Your task to perform on an android device: Search for macbook air on bestbuy, select the first entry, add it to the cart, then select checkout. Image 0: 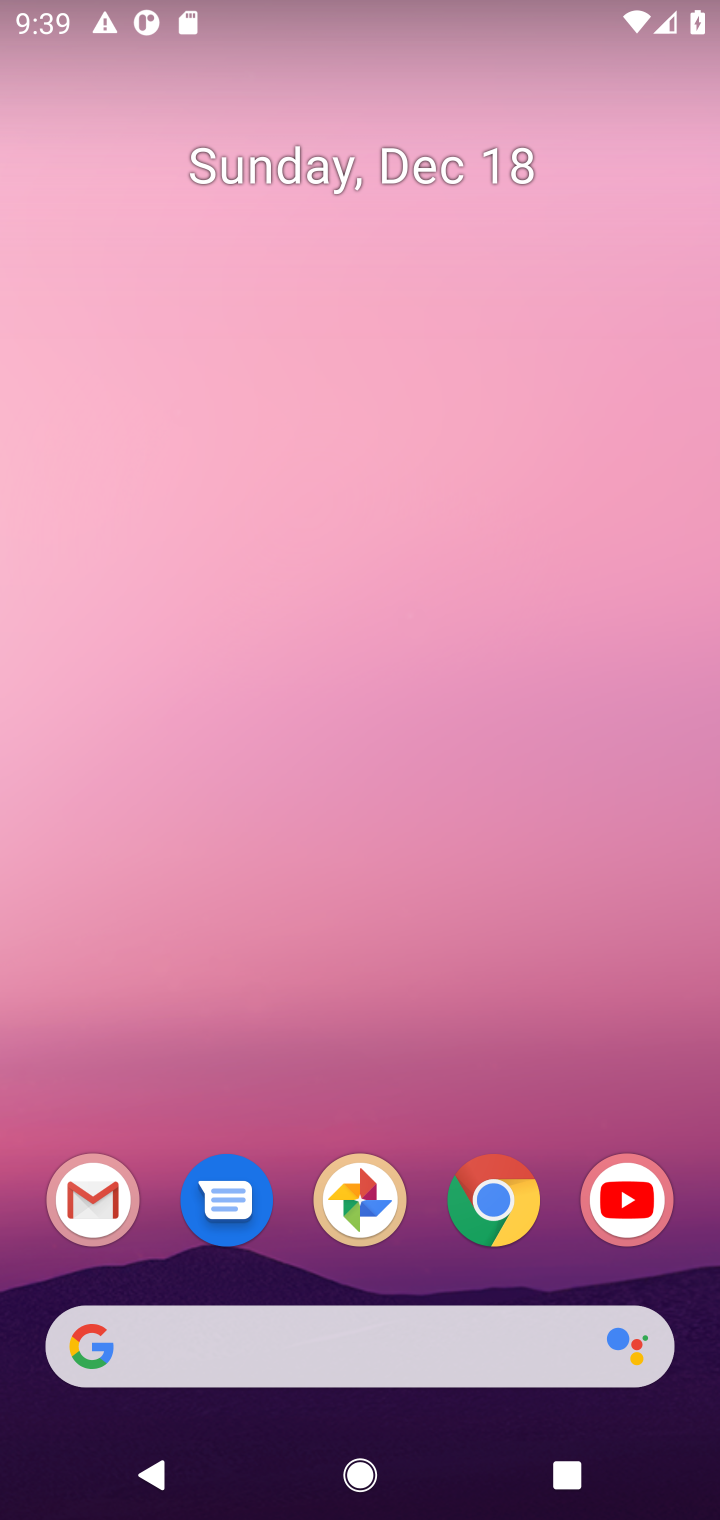
Step 0: click (535, 1217)
Your task to perform on an android device: Search for macbook air on bestbuy, select the first entry, add it to the cart, then select checkout. Image 1: 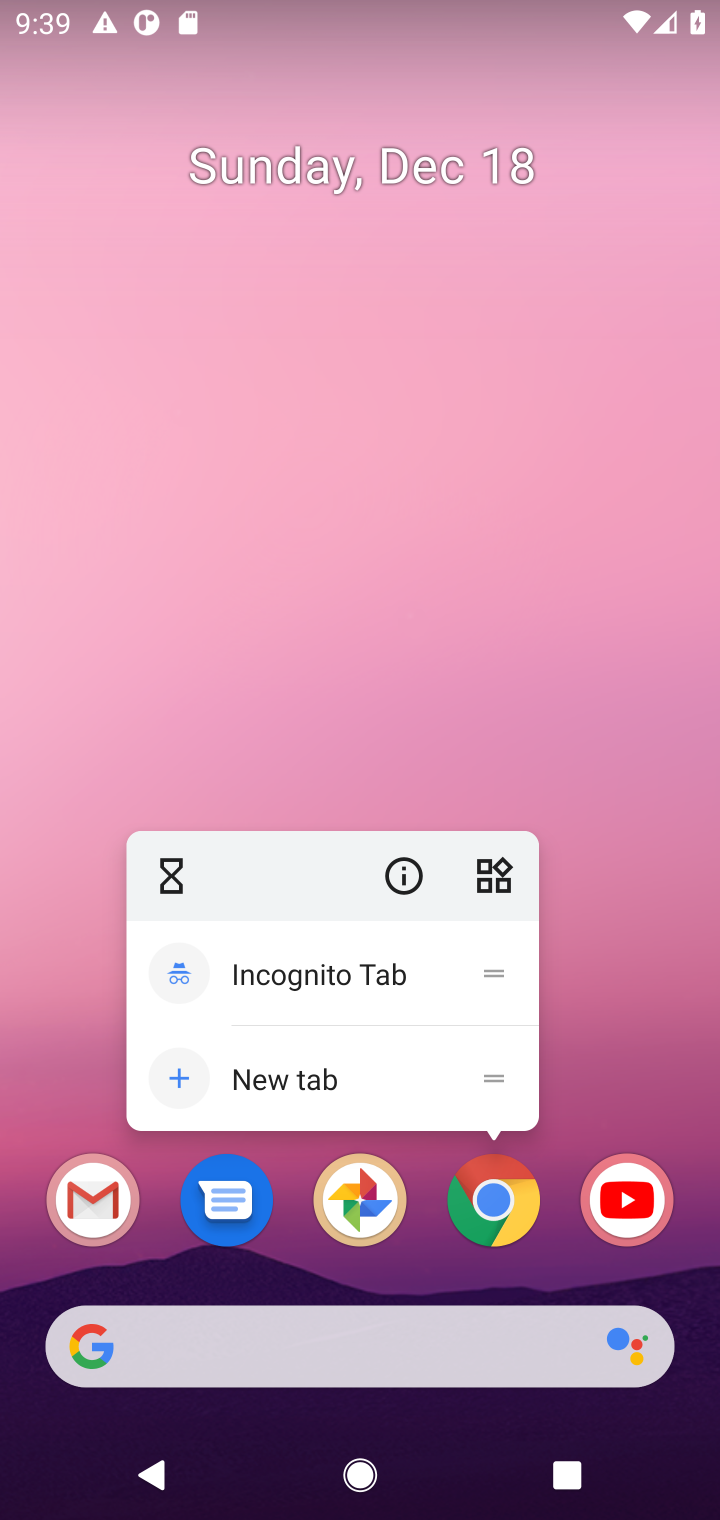
Step 1: click (515, 1220)
Your task to perform on an android device: Search for macbook air on bestbuy, select the first entry, add it to the cart, then select checkout. Image 2: 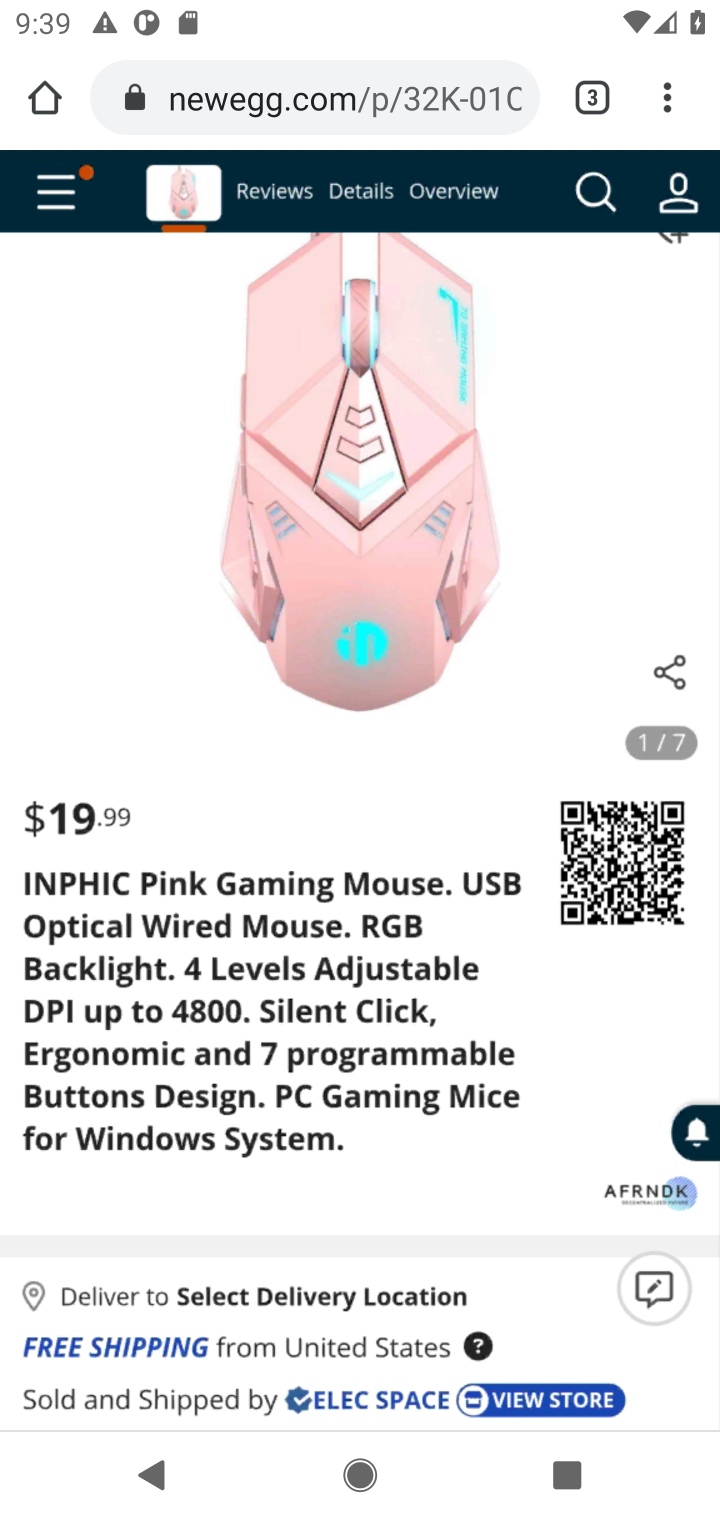
Step 2: click (313, 98)
Your task to perform on an android device: Search for macbook air on bestbuy, select the first entry, add it to the cart, then select checkout. Image 3: 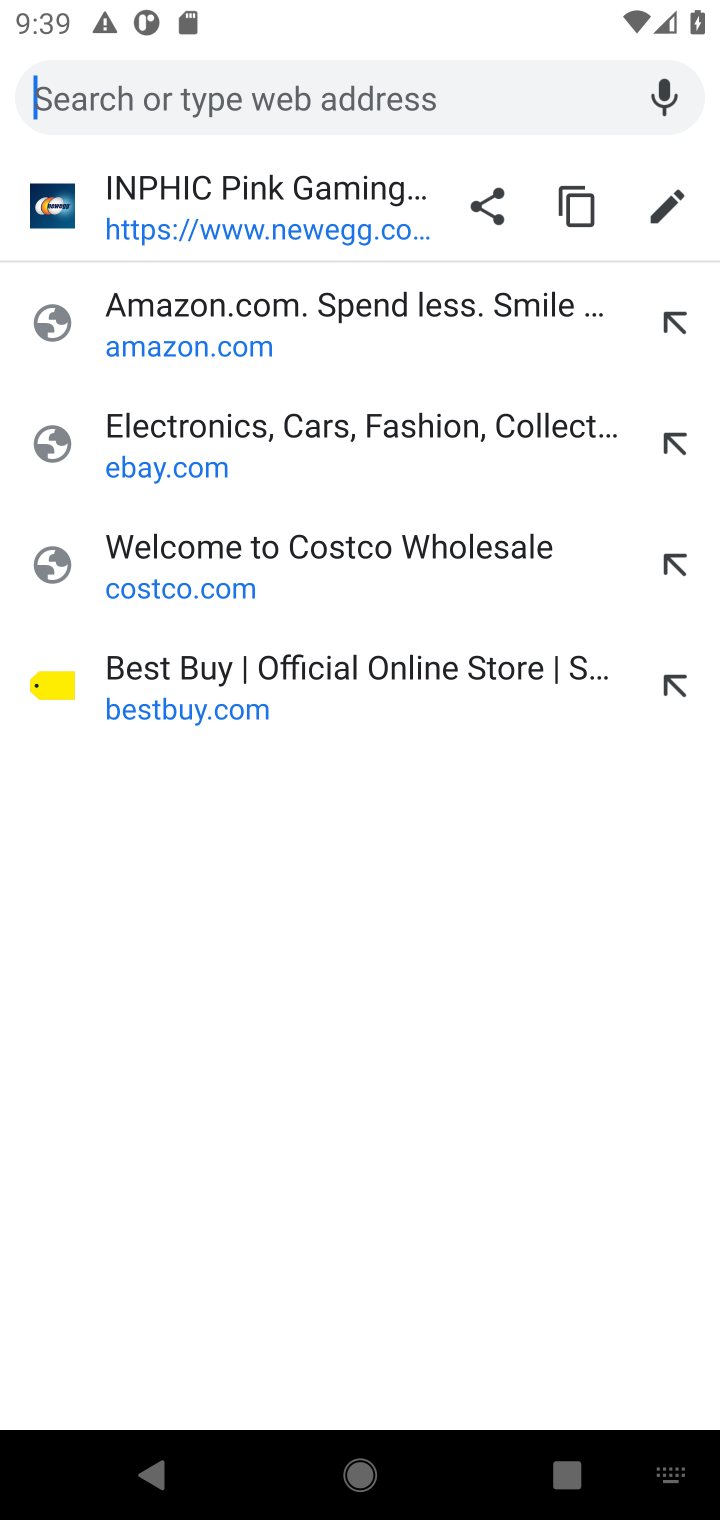
Step 3: click (173, 690)
Your task to perform on an android device: Search for macbook air on bestbuy, select the first entry, add it to the cart, then select checkout. Image 4: 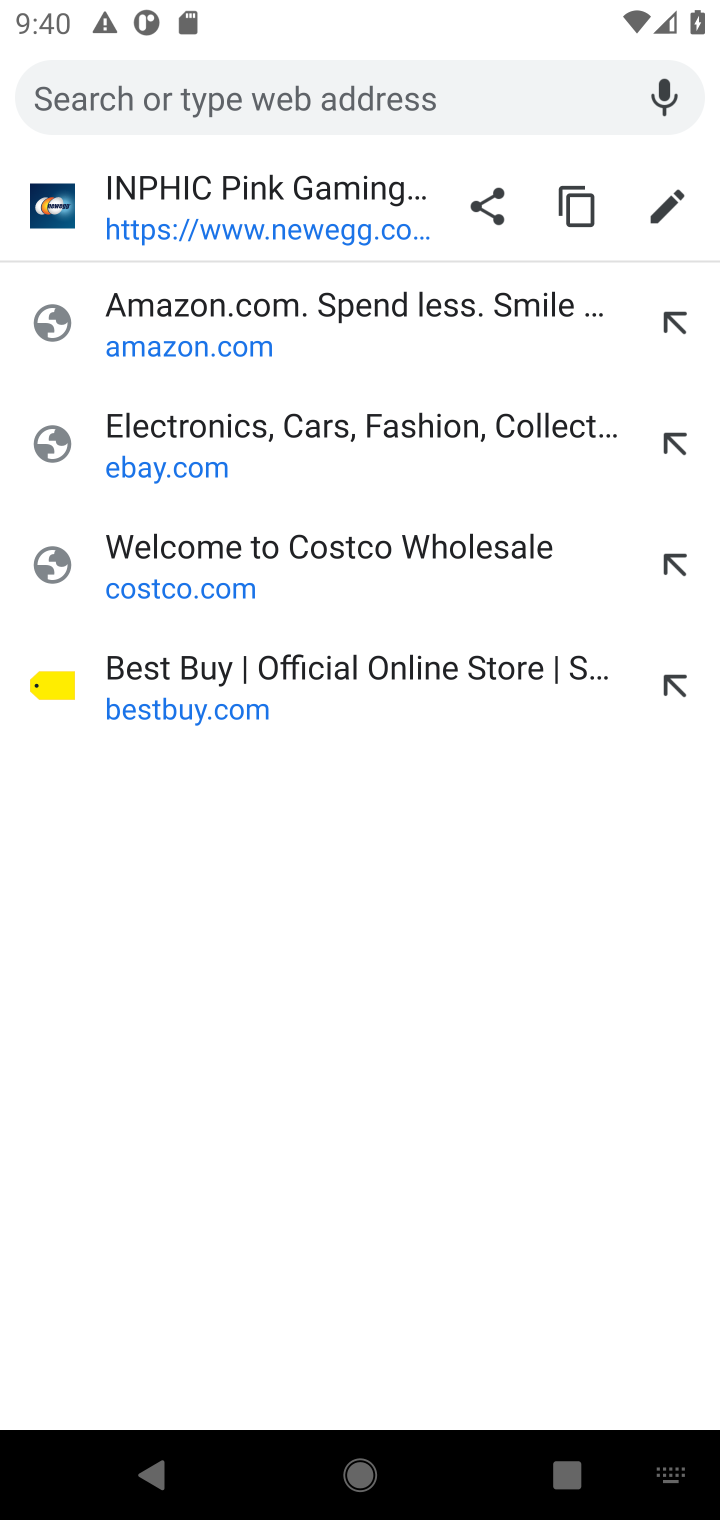
Step 4: click (173, 680)
Your task to perform on an android device: Search for macbook air on bestbuy, select the first entry, add it to the cart, then select checkout. Image 5: 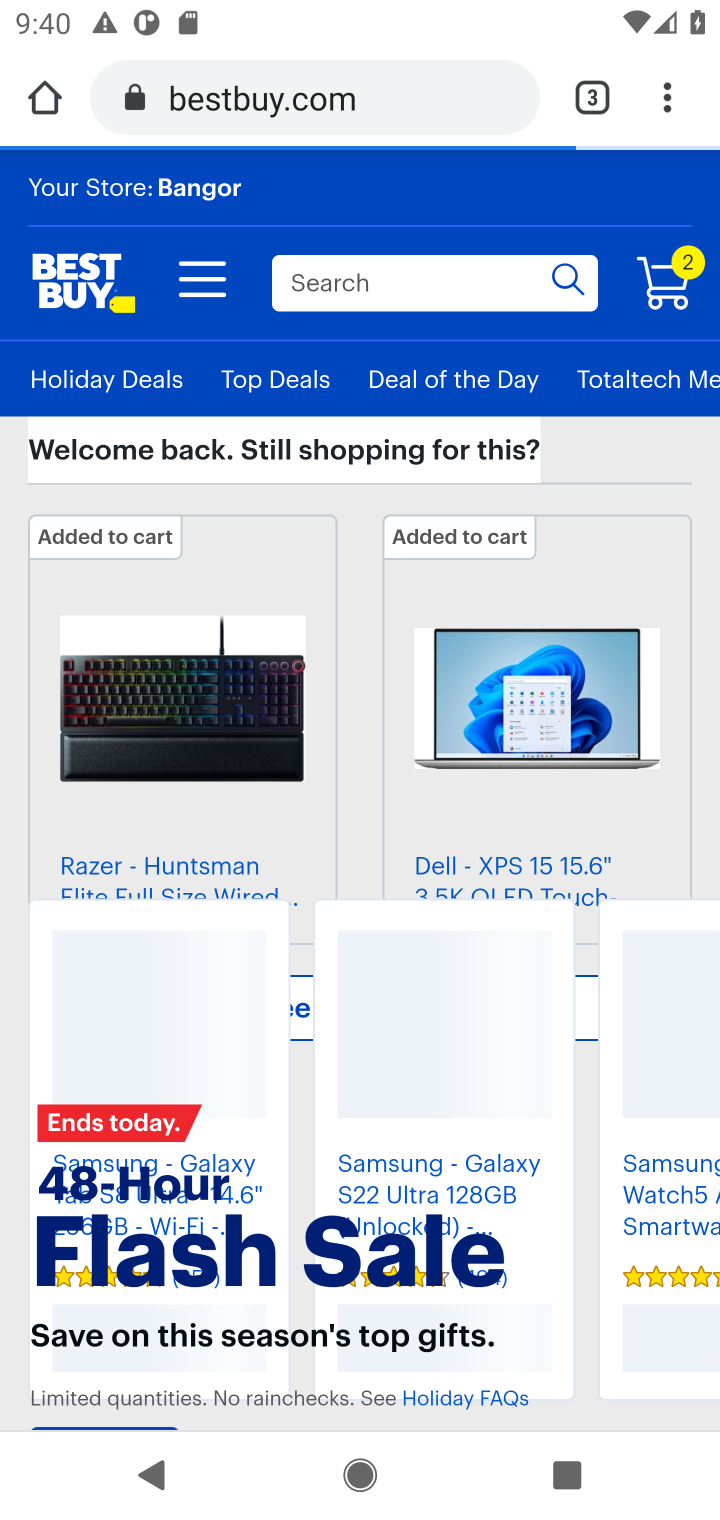
Step 5: click (369, 293)
Your task to perform on an android device: Search for macbook air on bestbuy, select the first entry, add it to the cart, then select checkout. Image 6: 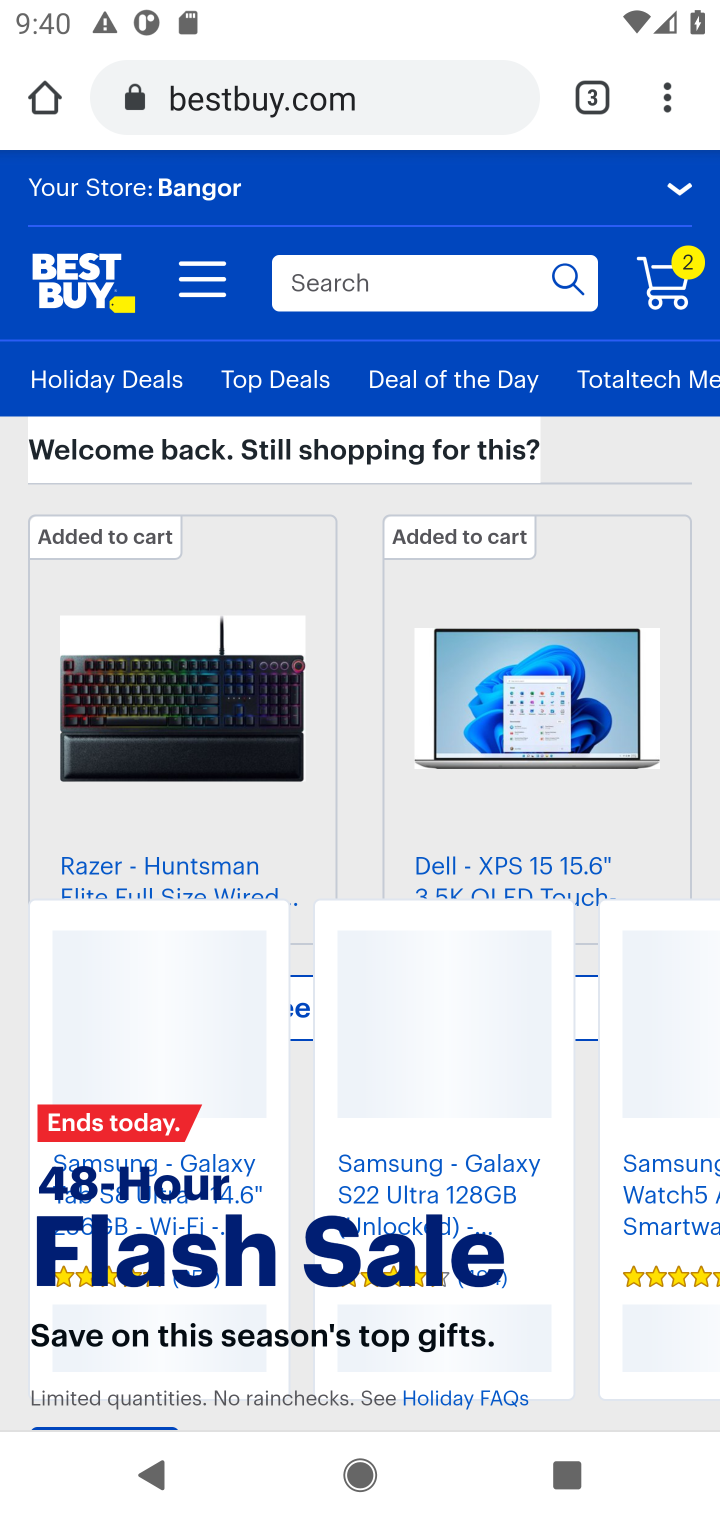
Step 6: type "macbook air "
Your task to perform on an android device: Search for macbook air on bestbuy, select the first entry, add it to the cart, then select checkout. Image 7: 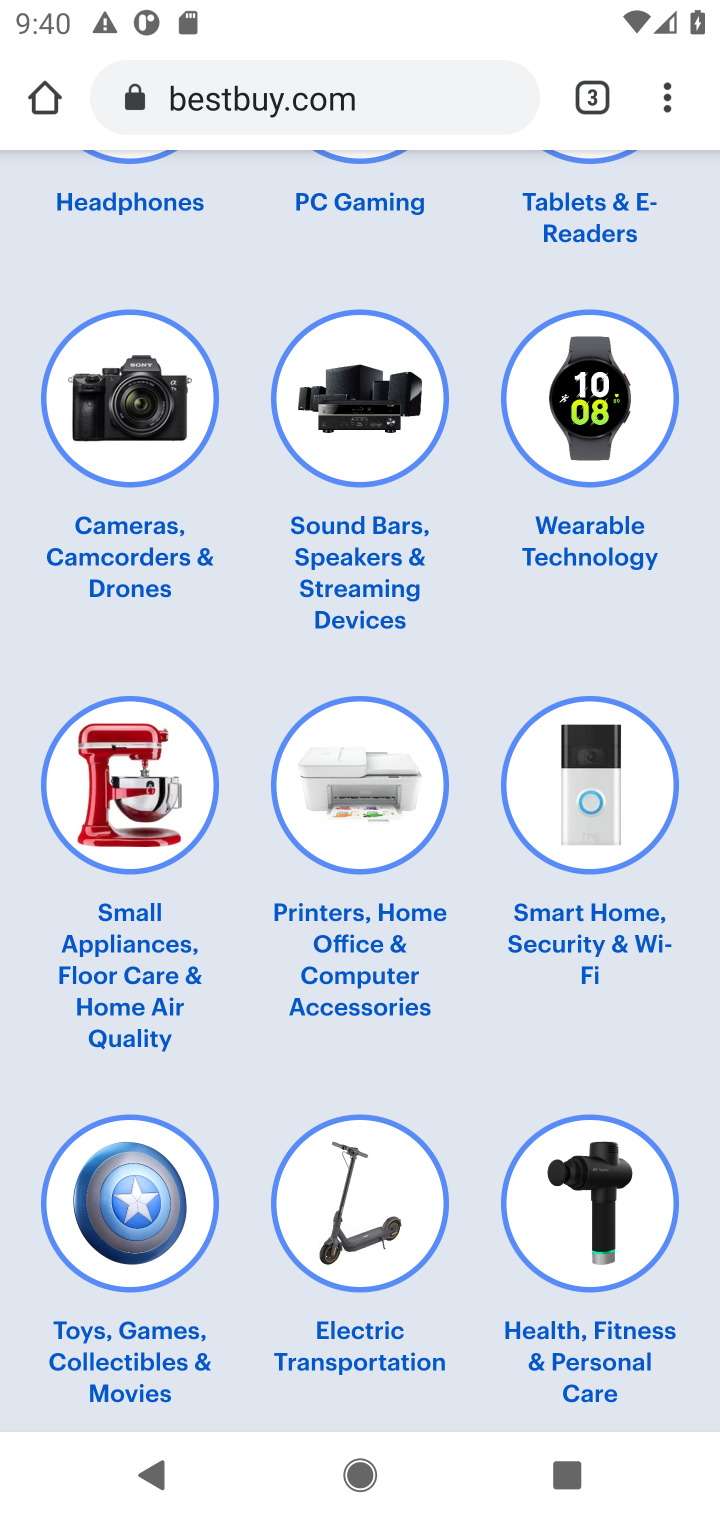
Step 7: drag from (352, 294) to (288, 1178)
Your task to perform on an android device: Search for macbook air on bestbuy, select the first entry, add it to the cart, then select checkout. Image 8: 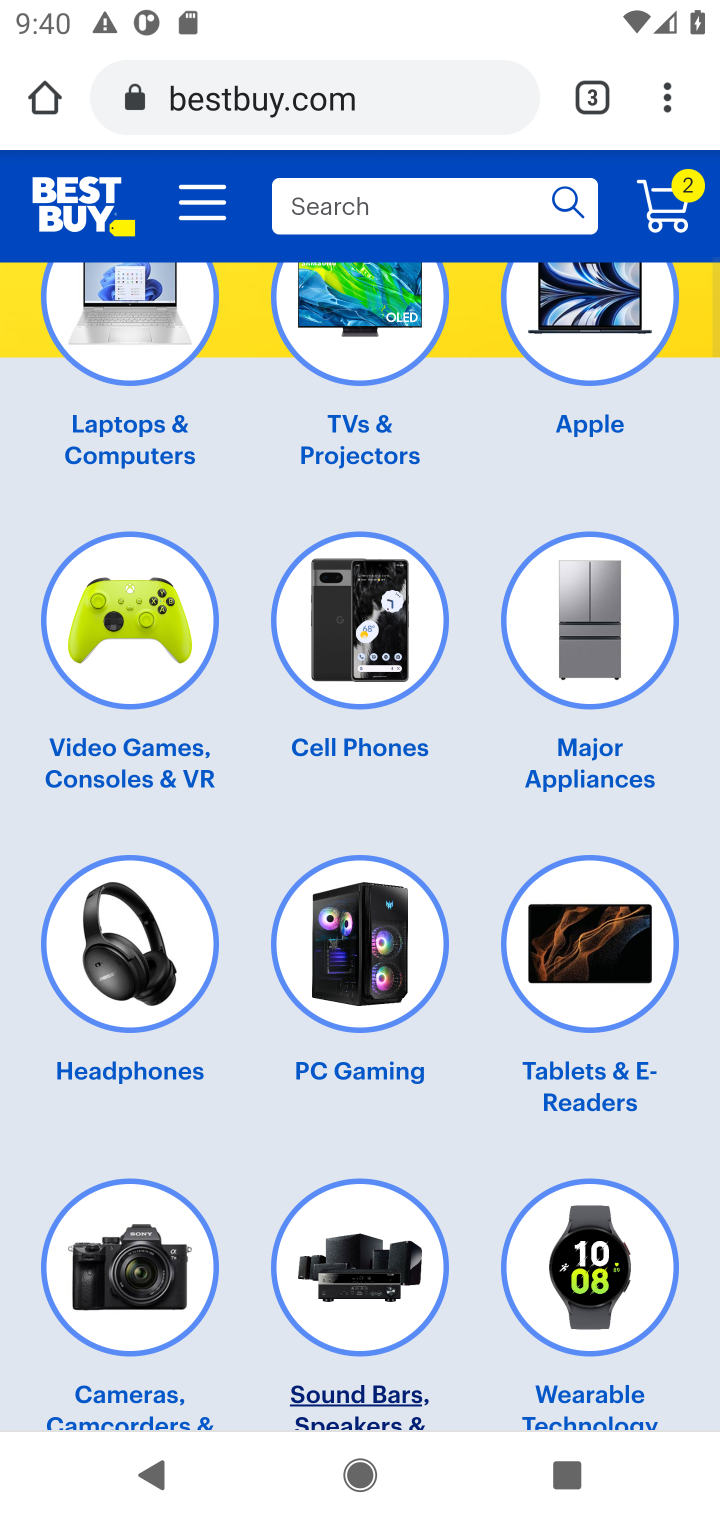
Step 8: drag from (257, 305) to (233, 922)
Your task to perform on an android device: Search for macbook air on bestbuy, select the first entry, add it to the cart, then select checkout. Image 9: 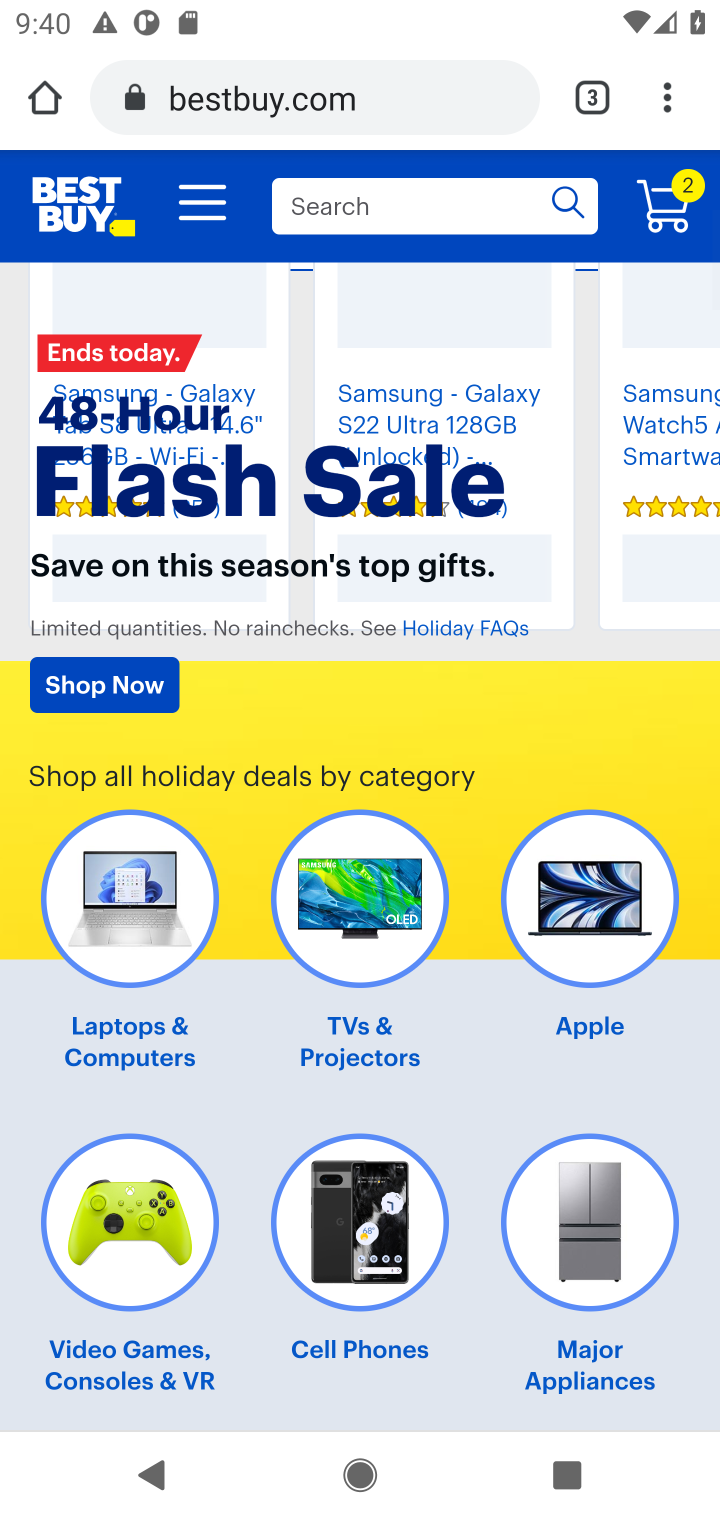
Step 9: click (393, 222)
Your task to perform on an android device: Search for macbook air on bestbuy, select the first entry, add it to the cart, then select checkout. Image 10: 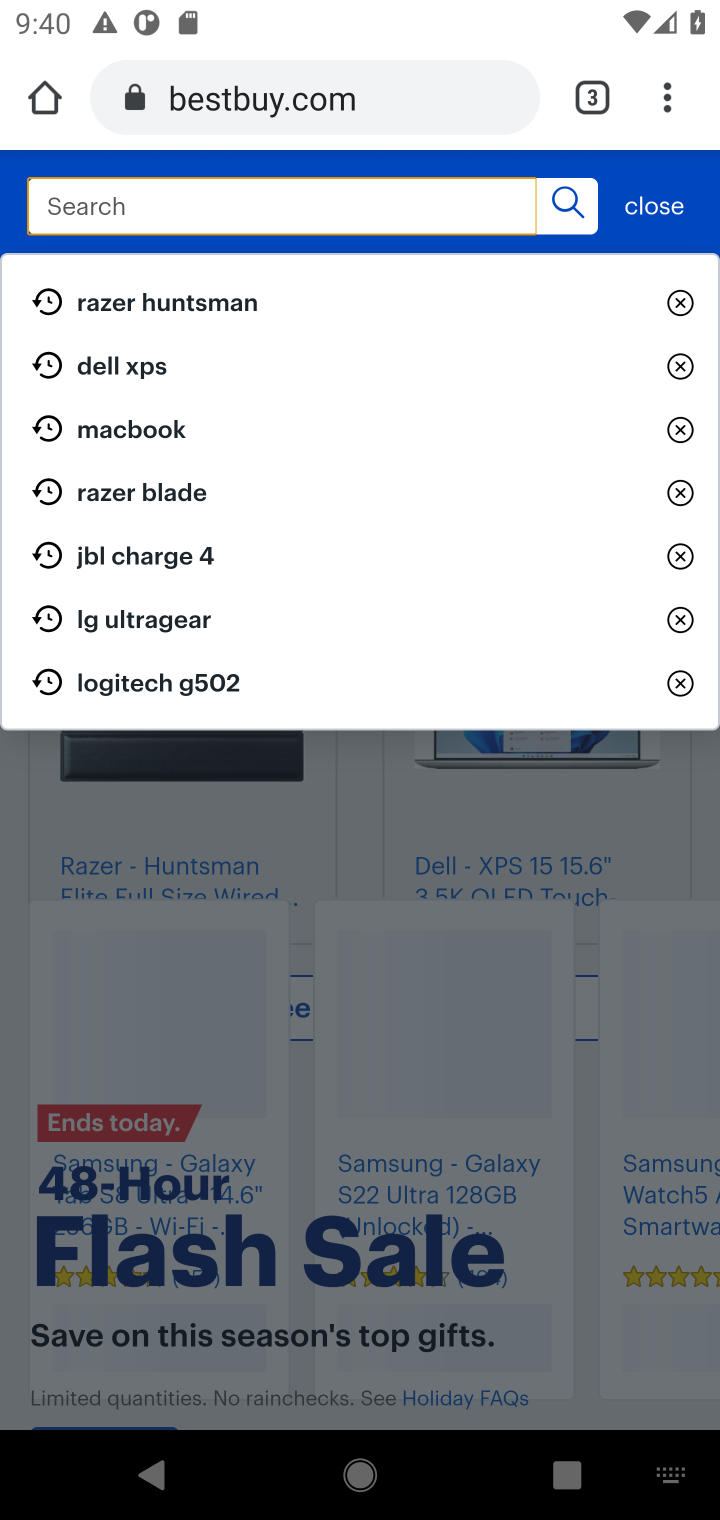
Step 10: type "macbook air "
Your task to perform on an android device: Search for macbook air on bestbuy, select the first entry, add it to the cart, then select checkout. Image 11: 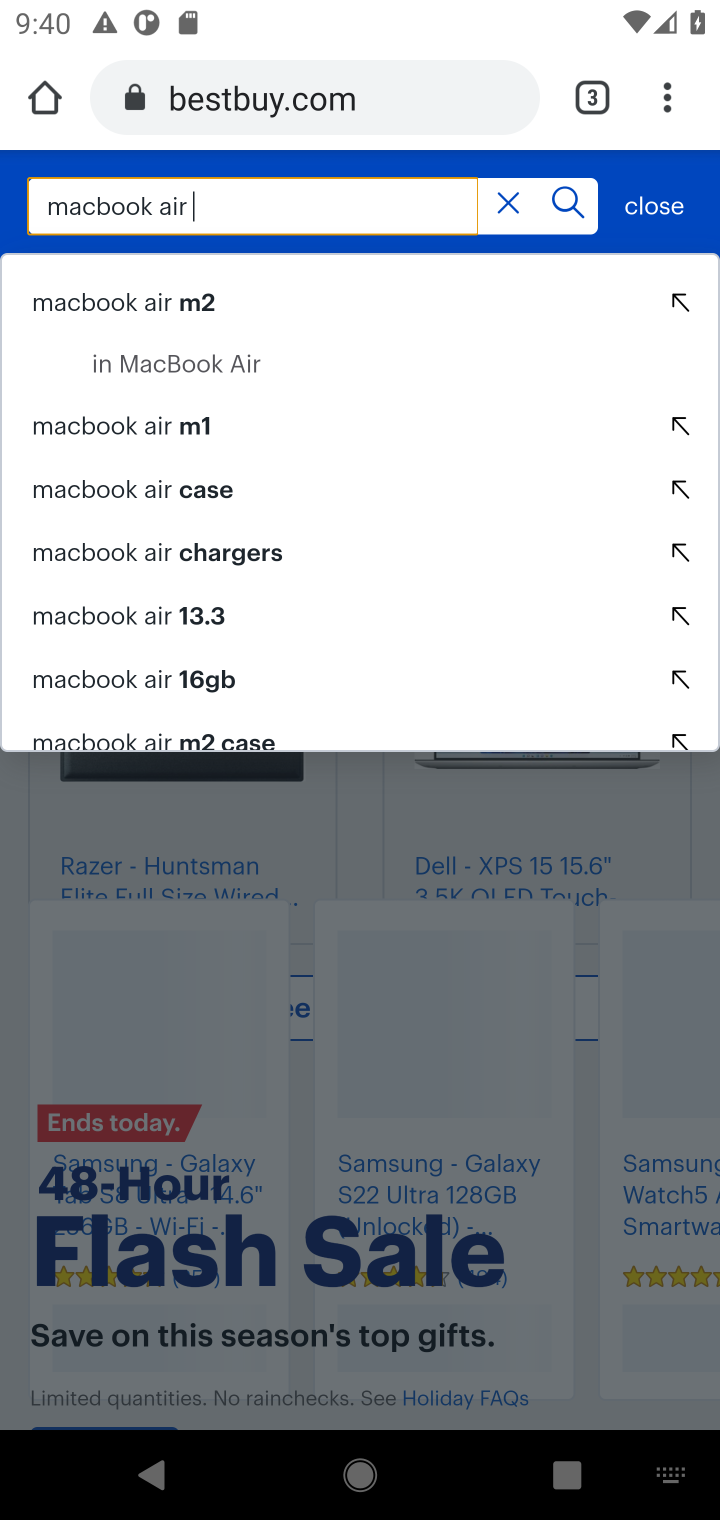
Step 11: click (566, 202)
Your task to perform on an android device: Search for macbook air on bestbuy, select the first entry, add it to the cart, then select checkout. Image 12: 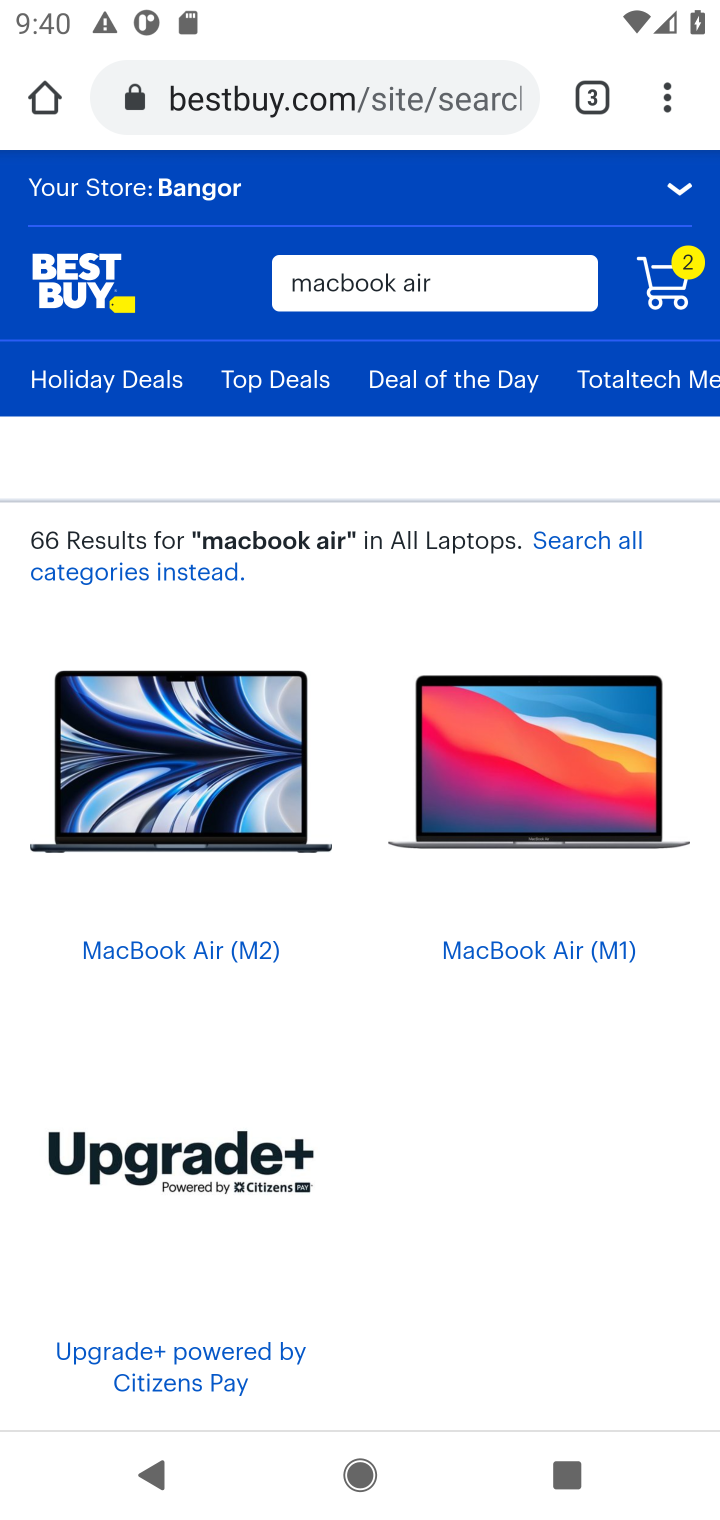
Step 12: drag from (326, 909) to (263, 298)
Your task to perform on an android device: Search for macbook air on bestbuy, select the first entry, add it to the cart, then select checkout. Image 13: 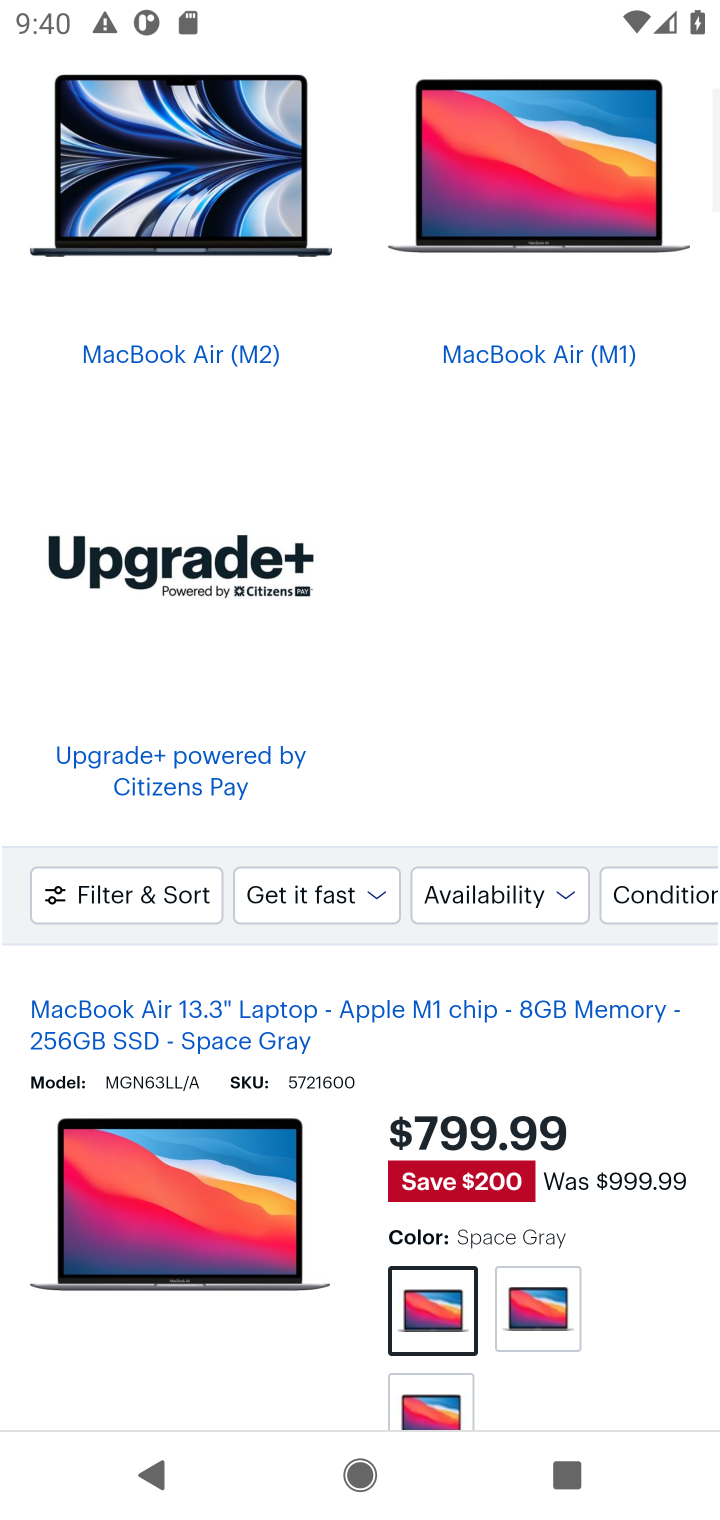
Step 13: drag from (270, 910) to (198, 504)
Your task to perform on an android device: Search for macbook air on bestbuy, select the first entry, add it to the cart, then select checkout. Image 14: 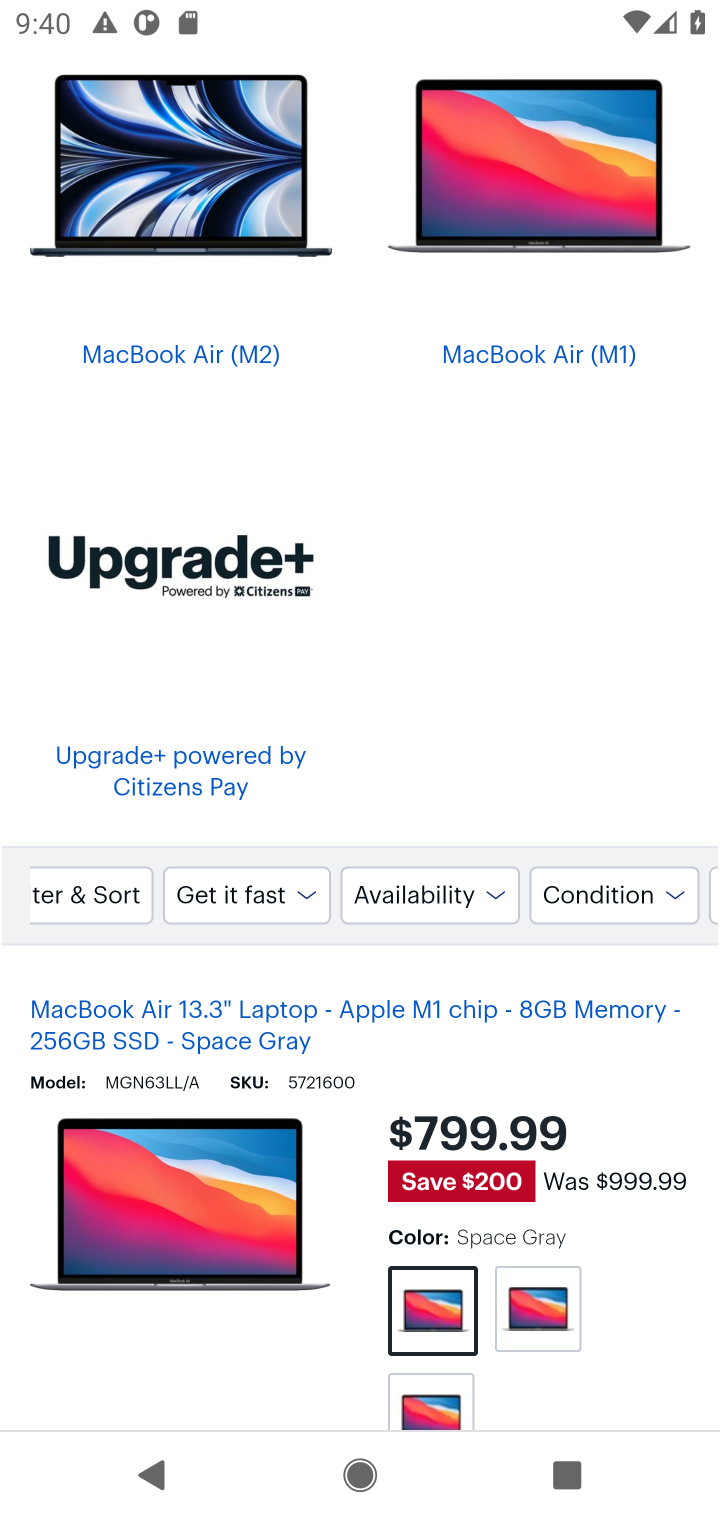
Step 14: drag from (413, 968) to (420, 654)
Your task to perform on an android device: Search for macbook air on bestbuy, select the first entry, add it to the cart, then select checkout. Image 15: 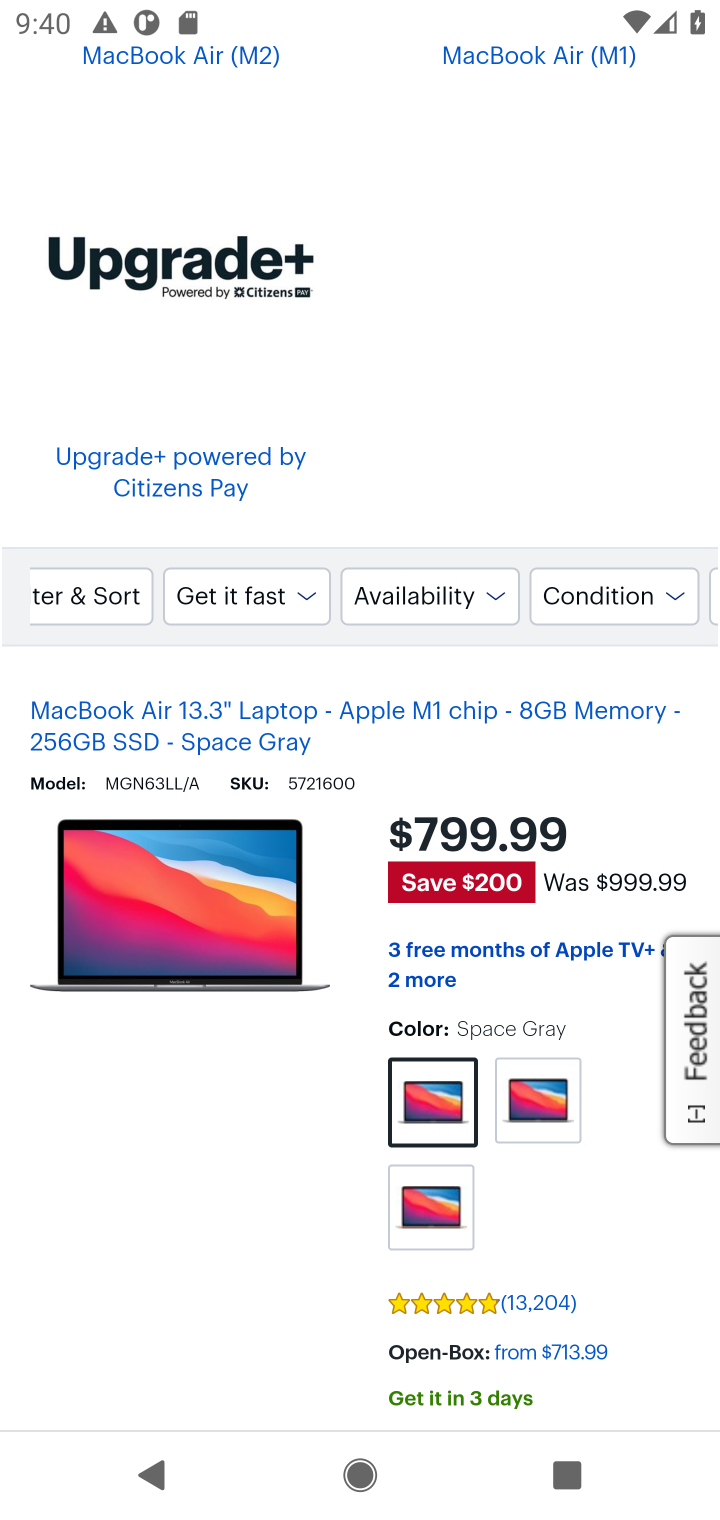
Step 15: drag from (343, 952) to (320, 405)
Your task to perform on an android device: Search for macbook air on bestbuy, select the first entry, add it to the cart, then select checkout. Image 16: 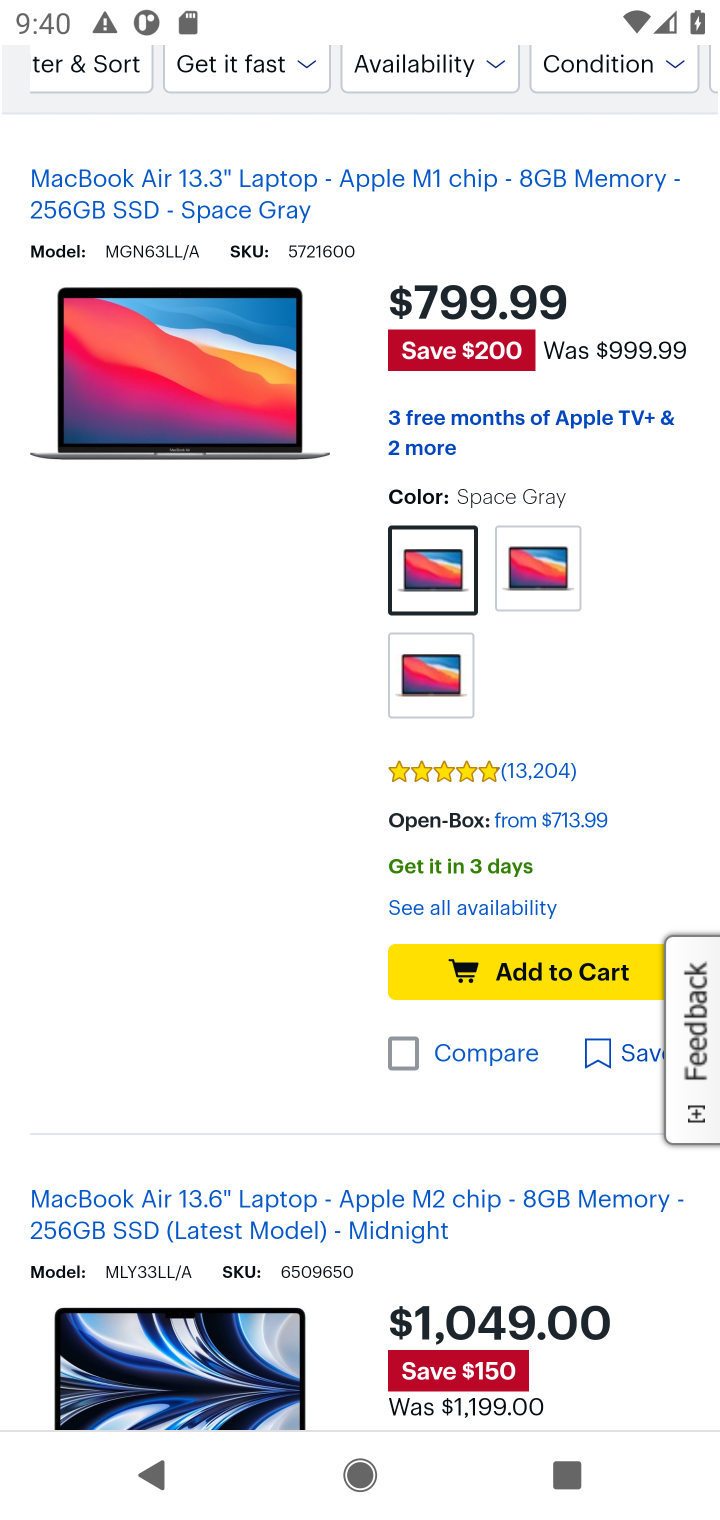
Step 16: click (548, 982)
Your task to perform on an android device: Search for macbook air on bestbuy, select the first entry, add it to the cart, then select checkout. Image 17: 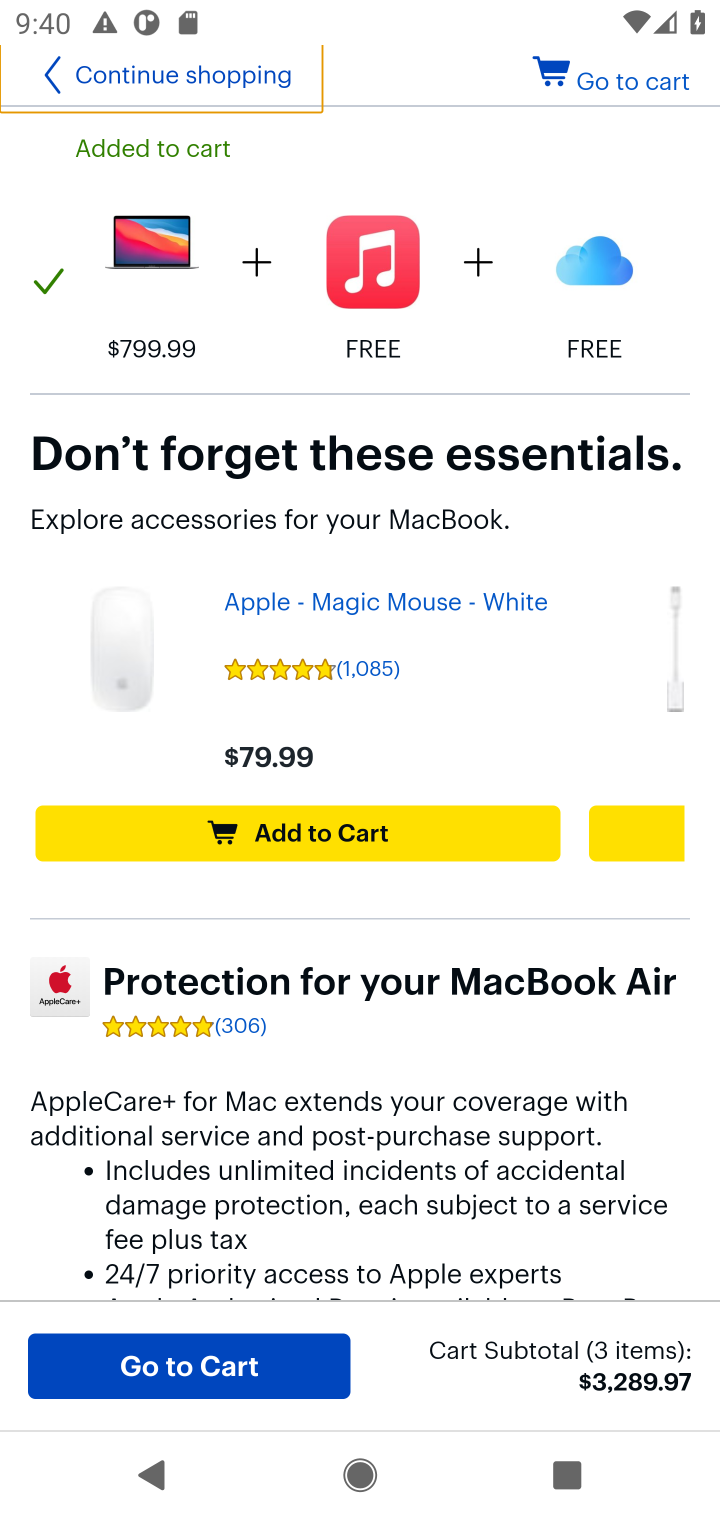
Step 17: click (636, 89)
Your task to perform on an android device: Search for macbook air on bestbuy, select the first entry, add it to the cart, then select checkout. Image 18: 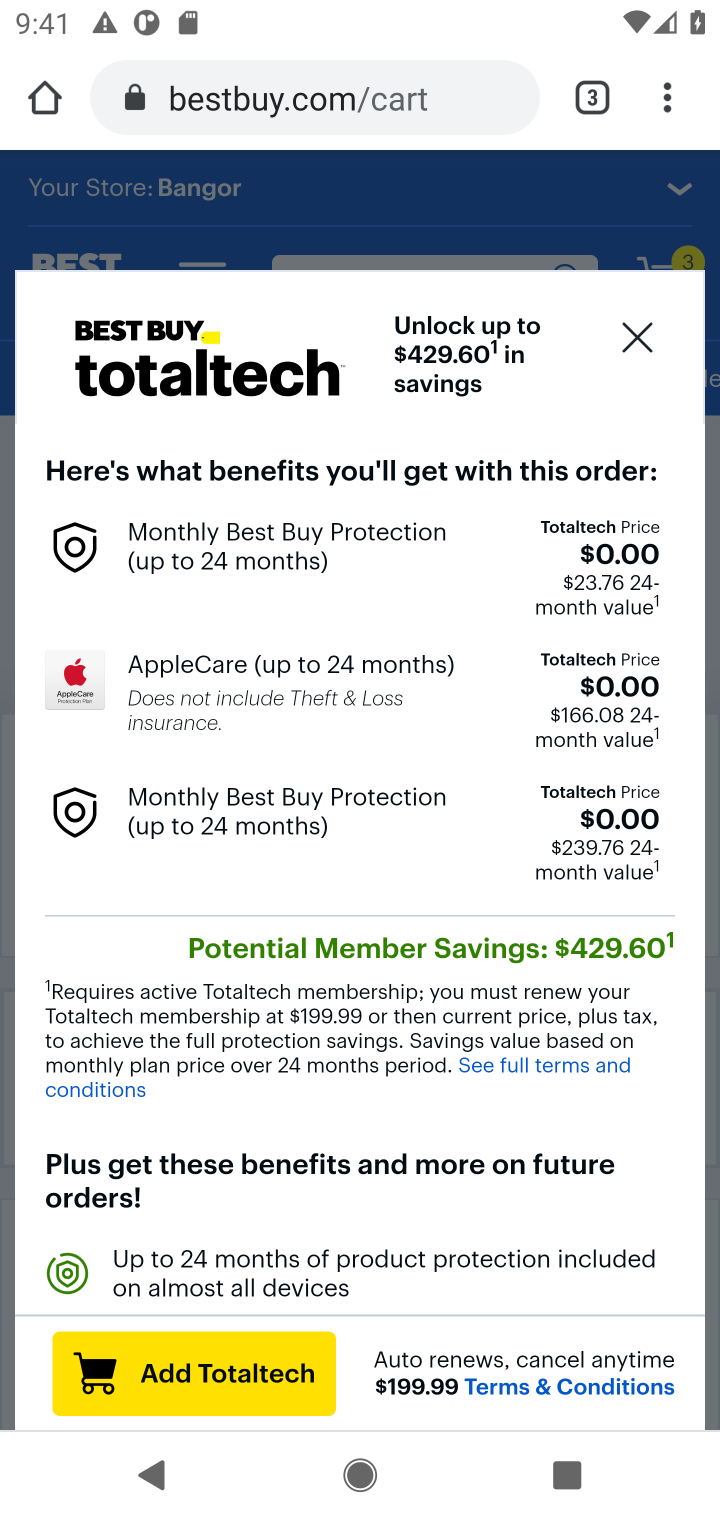
Step 18: click (643, 342)
Your task to perform on an android device: Search for macbook air on bestbuy, select the first entry, add it to the cart, then select checkout. Image 19: 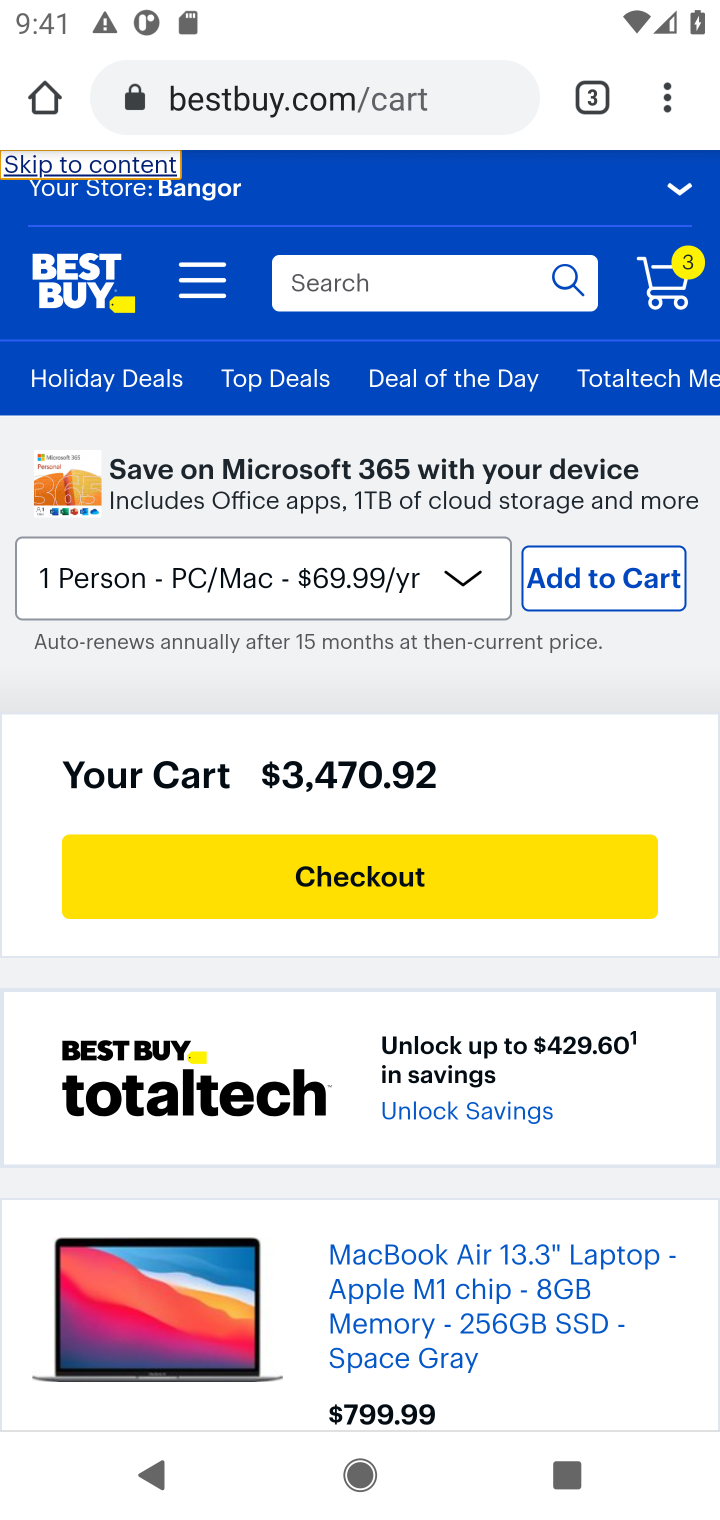
Step 19: click (327, 879)
Your task to perform on an android device: Search for macbook air on bestbuy, select the first entry, add it to the cart, then select checkout. Image 20: 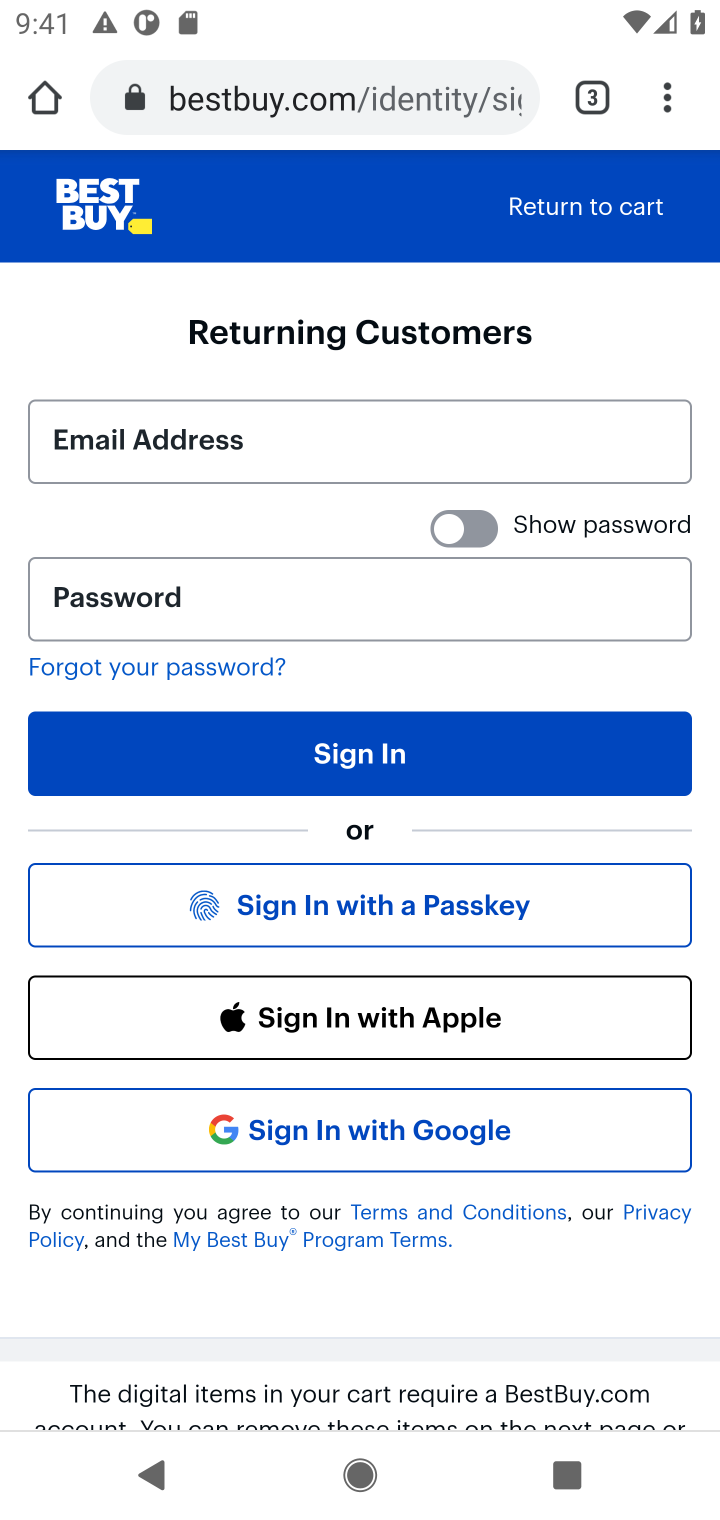
Step 20: task complete